Your task to perform on an android device: open device folders in google photos Image 0: 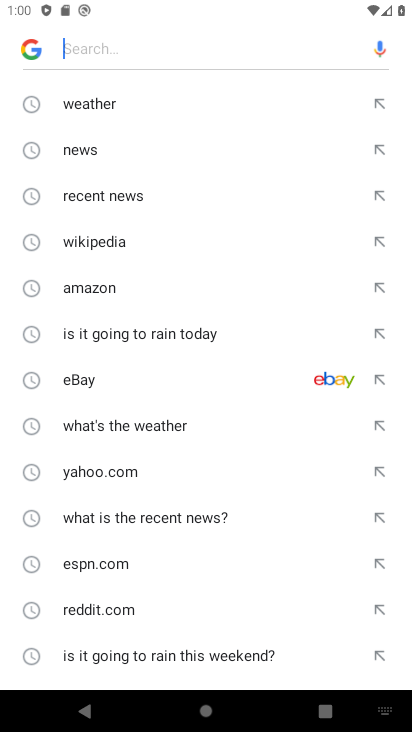
Step 0: press home button
Your task to perform on an android device: open device folders in google photos Image 1: 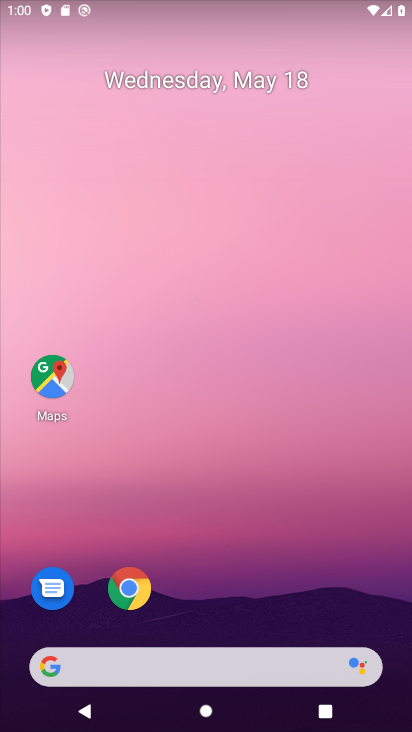
Step 1: drag from (362, 600) to (348, 172)
Your task to perform on an android device: open device folders in google photos Image 2: 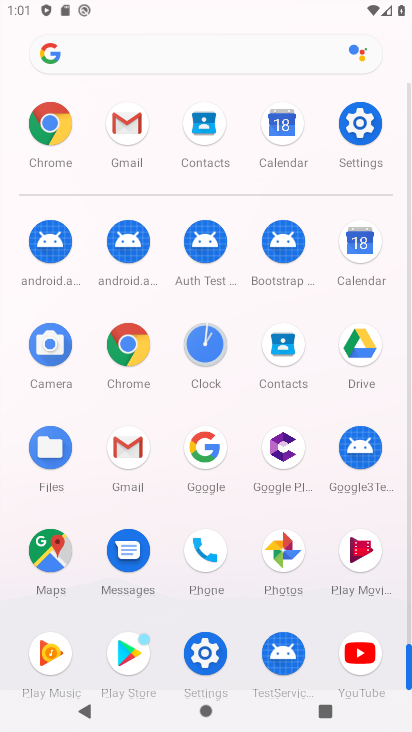
Step 2: click (279, 562)
Your task to perform on an android device: open device folders in google photos Image 3: 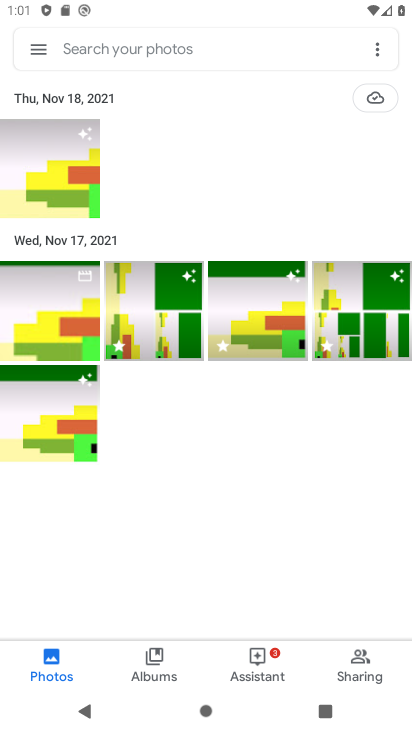
Step 3: click (39, 47)
Your task to perform on an android device: open device folders in google photos Image 4: 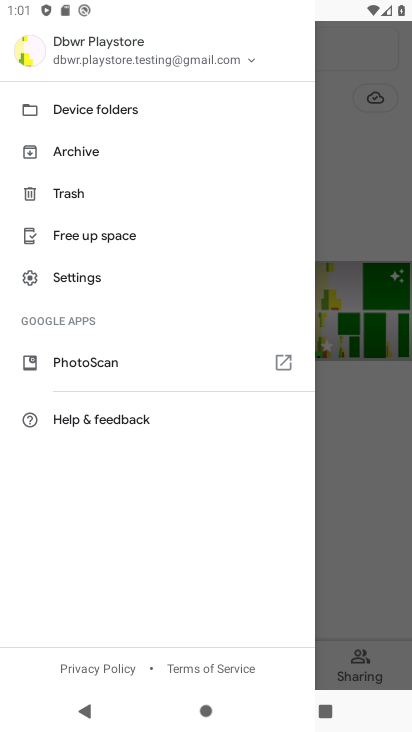
Step 4: click (112, 110)
Your task to perform on an android device: open device folders in google photos Image 5: 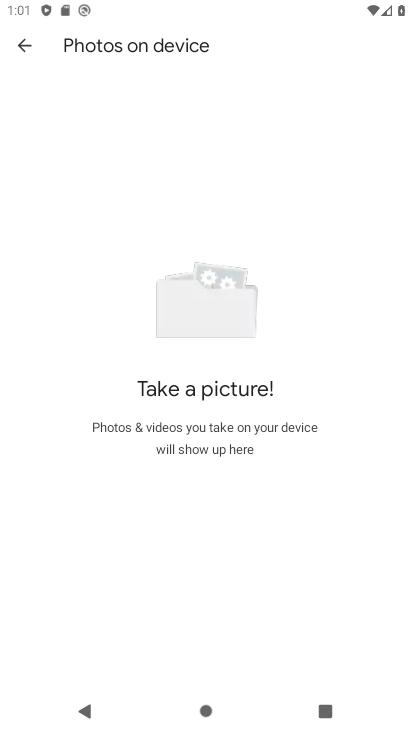
Step 5: task complete